Your task to perform on an android device: visit the assistant section in the google photos Image 0: 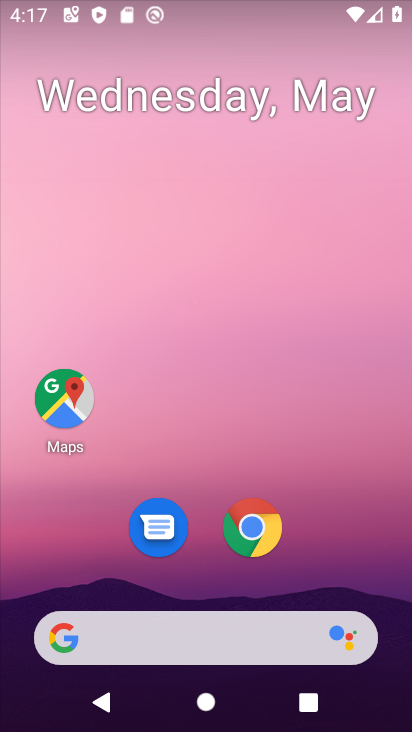
Step 0: drag from (324, 553) to (318, 6)
Your task to perform on an android device: visit the assistant section in the google photos Image 1: 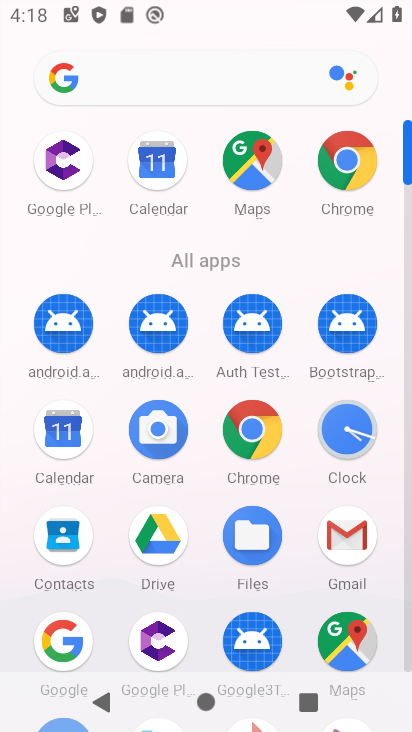
Step 1: click (405, 667)
Your task to perform on an android device: visit the assistant section in the google photos Image 2: 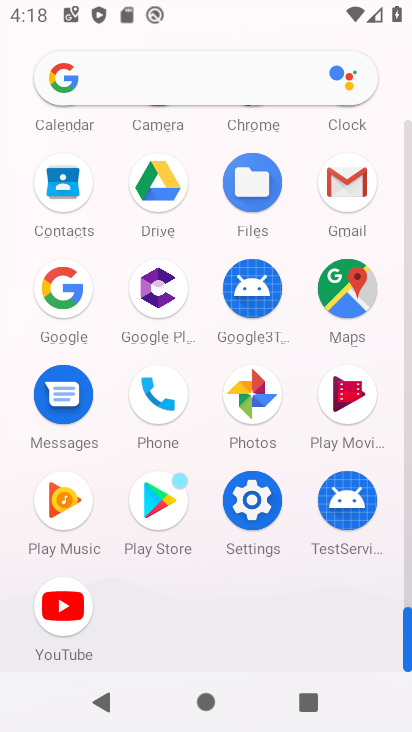
Step 2: click (253, 373)
Your task to perform on an android device: visit the assistant section in the google photos Image 3: 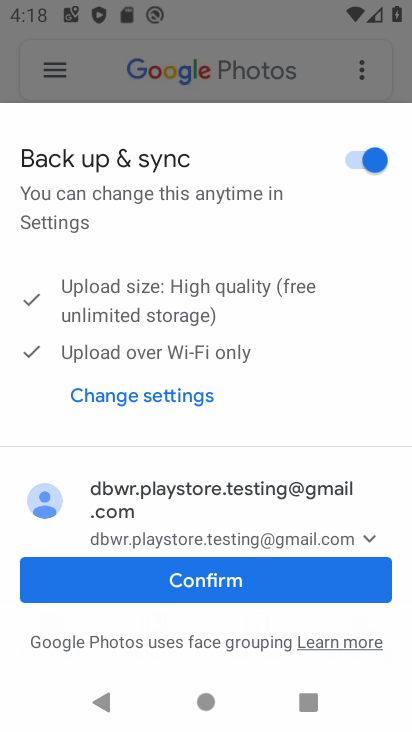
Step 3: click (257, 633)
Your task to perform on an android device: visit the assistant section in the google photos Image 4: 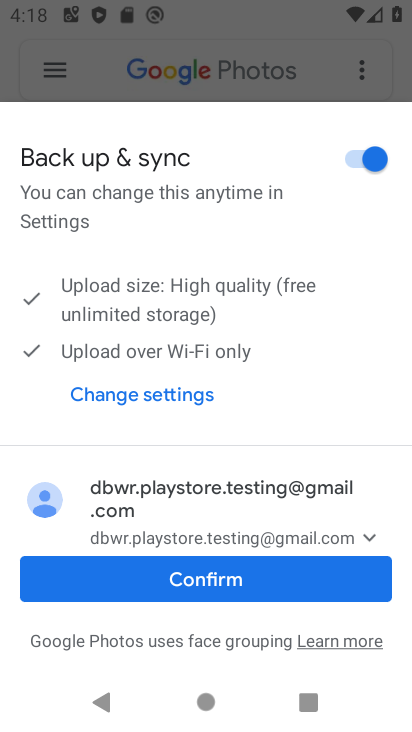
Step 4: click (320, 574)
Your task to perform on an android device: visit the assistant section in the google photos Image 5: 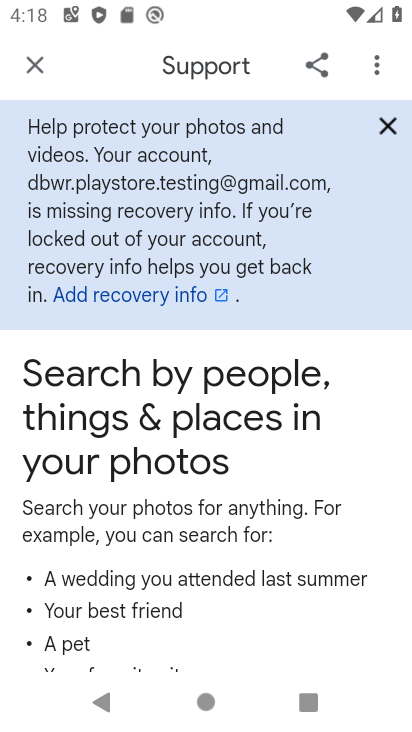
Step 5: click (10, 75)
Your task to perform on an android device: visit the assistant section in the google photos Image 6: 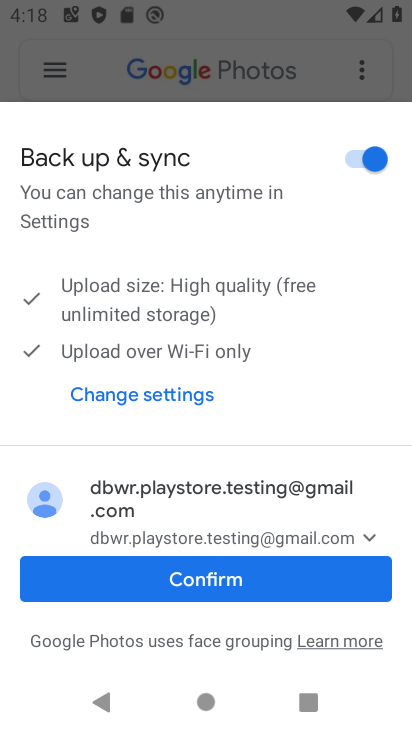
Step 6: click (235, 581)
Your task to perform on an android device: visit the assistant section in the google photos Image 7: 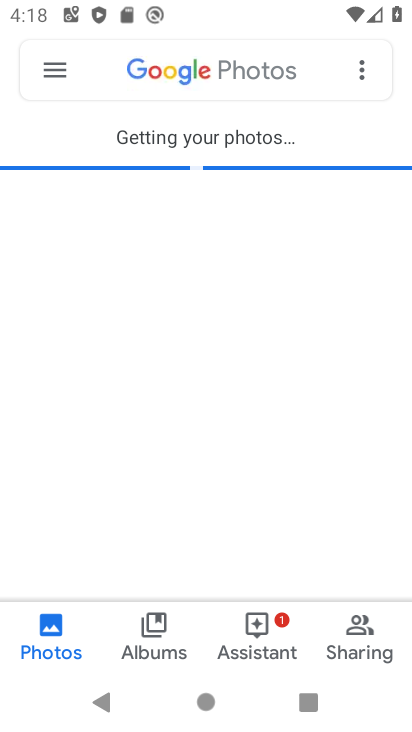
Step 7: click (257, 627)
Your task to perform on an android device: visit the assistant section in the google photos Image 8: 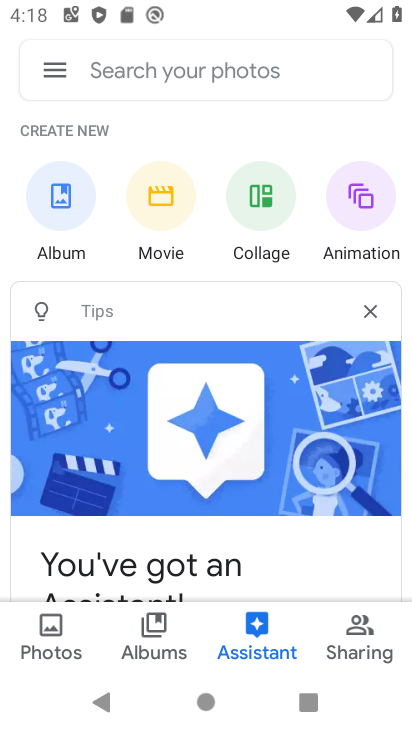
Step 8: task complete